Your task to perform on an android device: See recent photos Image 0: 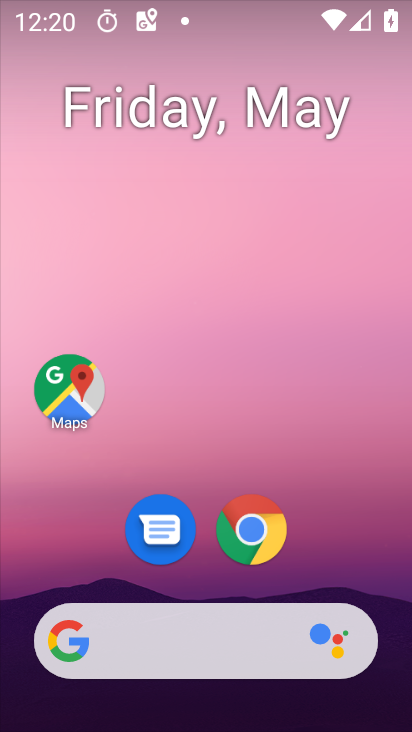
Step 0: drag from (259, 631) to (324, 69)
Your task to perform on an android device: See recent photos Image 1: 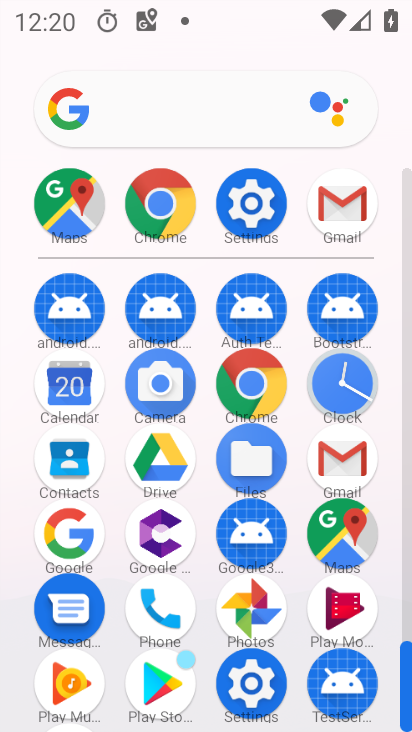
Step 1: click (264, 609)
Your task to perform on an android device: See recent photos Image 2: 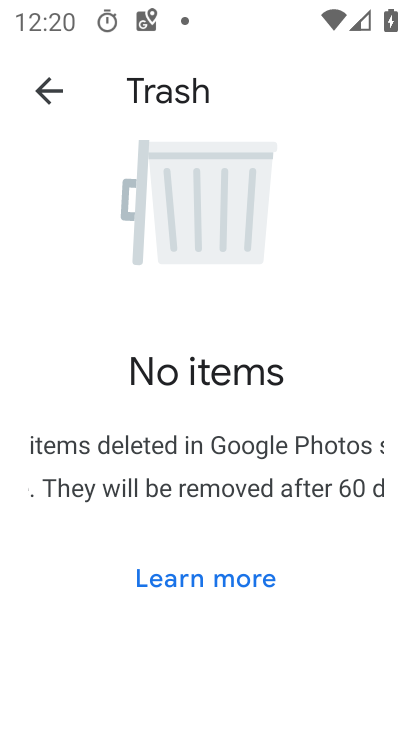
Step 2: click (47, 96)
Your task to perform on an android device: See recent photos Image 3: 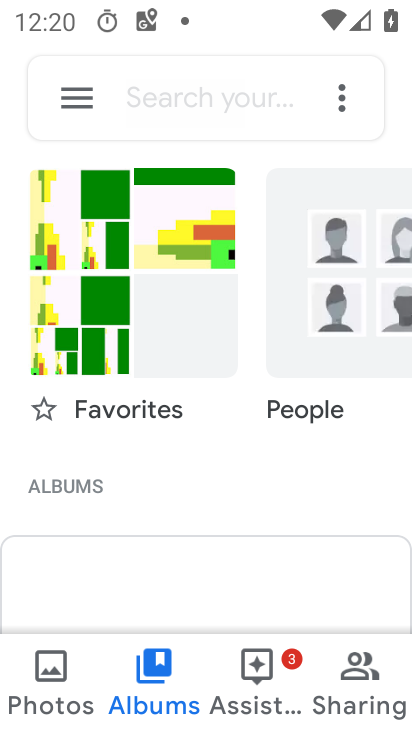
Step 3: click (59, 690)
Your task to perform on an android device: See recent photos Image 4: 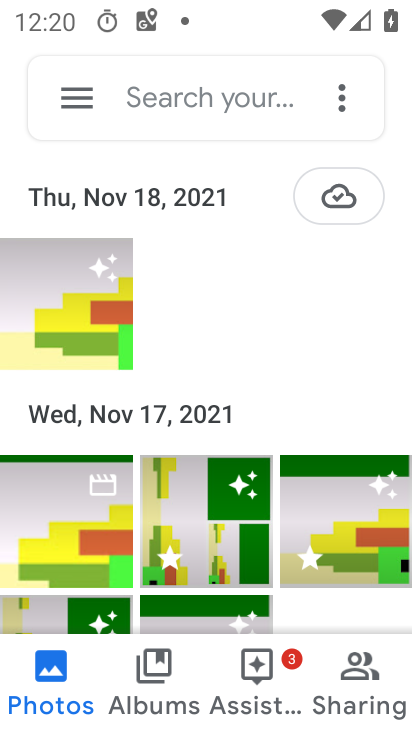
Step 4: task complete